Your task to perform on an android device: open a bookmark in the chrome app Image 0: 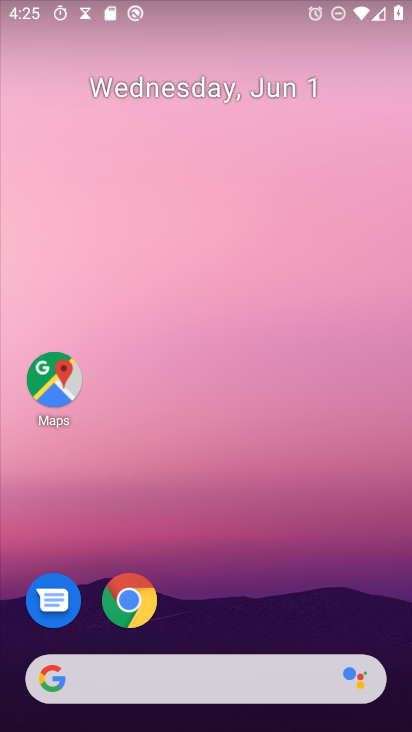
Step 0: click (118, 609)
Your task to perform on an android device: open a bookmark in the chrome app Image 1: 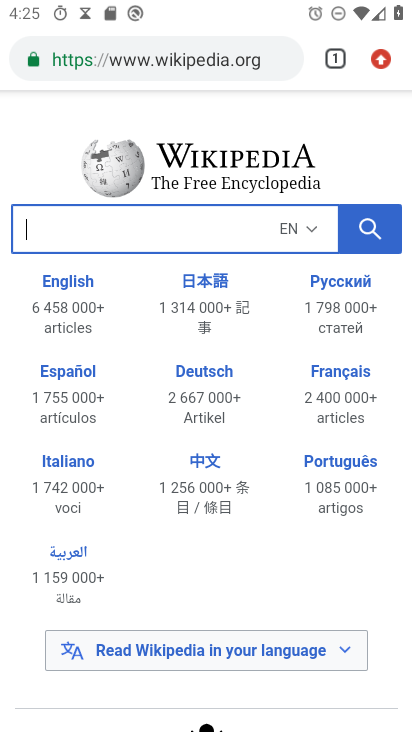
Step 1: click (385, 64)
Your task to perform on an android device: open a bookmark in the chrome app Image 2: 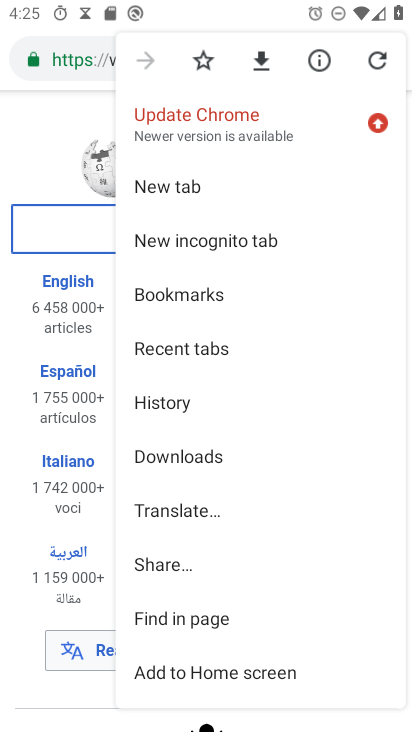
Step 2: click (170, 293)
Your task to perform on an android device: open a bookmark in the chrome app Image 3: 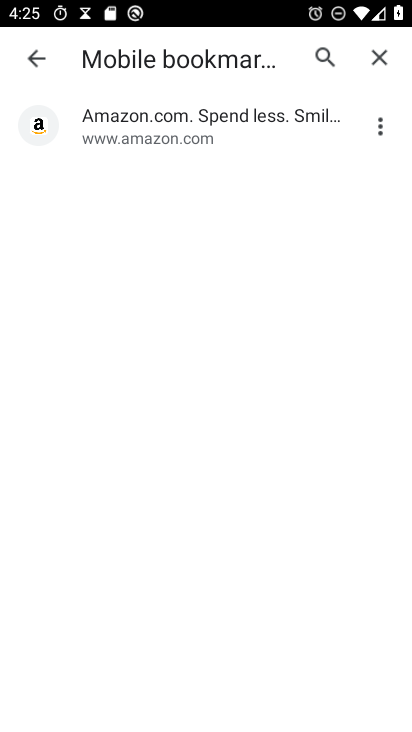
Step 3: click (234, 128)
Your task to perform on an android device: open a bookmark in the chrome app Image 4: 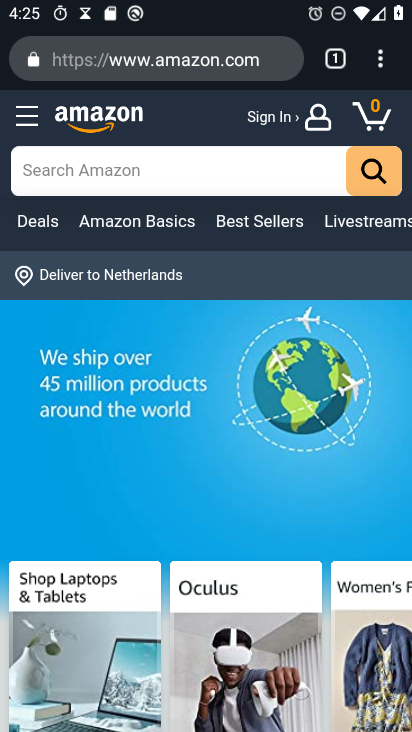
Step 4: task complete